Your task to perform on an android device: Show me the alarms in the clock app Image 0: 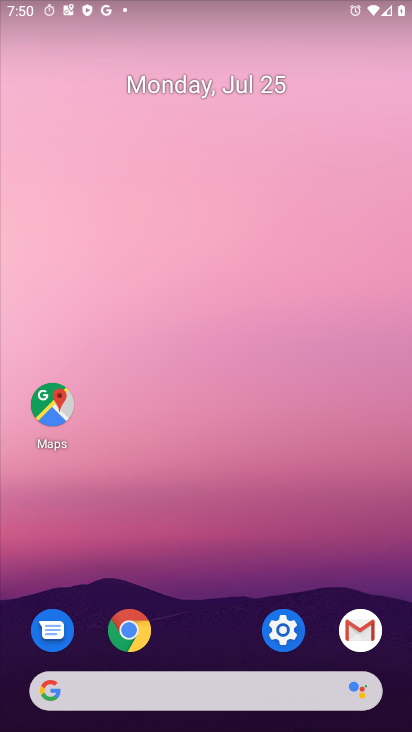
Step 0: drag from (281, 701) to (294, 153)
Your task to perform on an android device: Show me the alarms in the clock app Image 1: 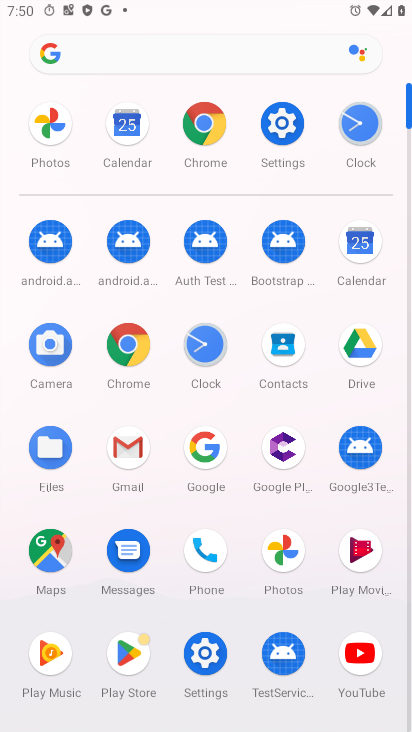
Step 1: click (361, 134)
Your task to perform on an android device: Show me the alarms in the clock app Image 2: 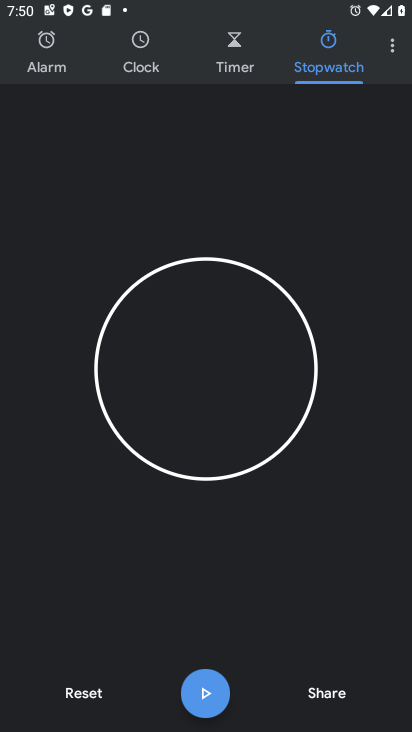
Step 2: click (51, 65)
Your task to perform on an android device: Show me the alarms in the clock app Image 3: 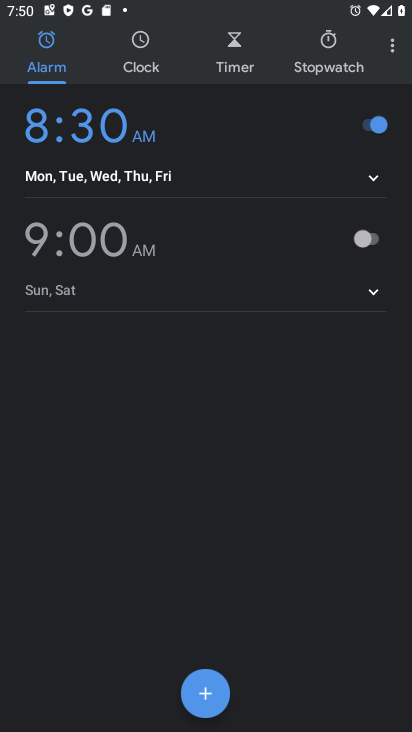
Step 3: task complete